Your task to perform on an android device: Open Chrome and go to settings Image 0: 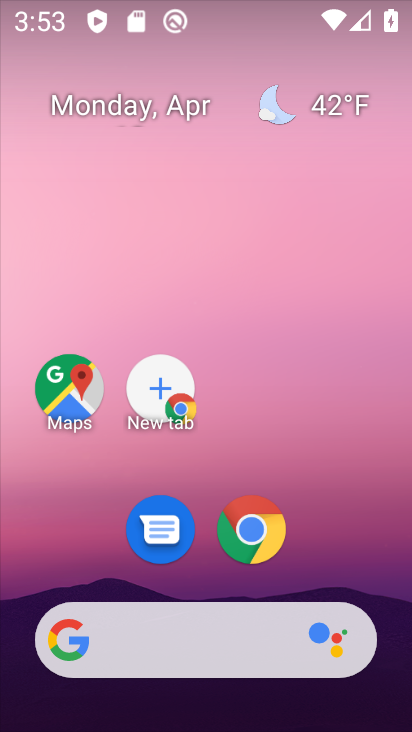
Step 0: click (233, 535)
Your task to perform on an android device: Open Chrome and go to settings Image 1: 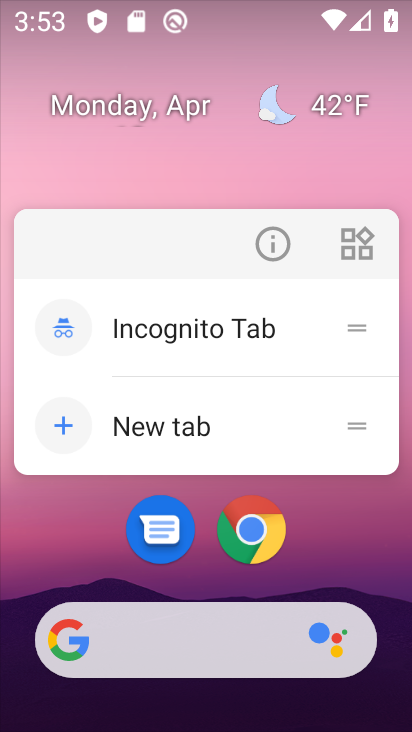
Step 1: click (268, 528)
Your task to perform on an android device: Open Chrome and go to settings Image 2: 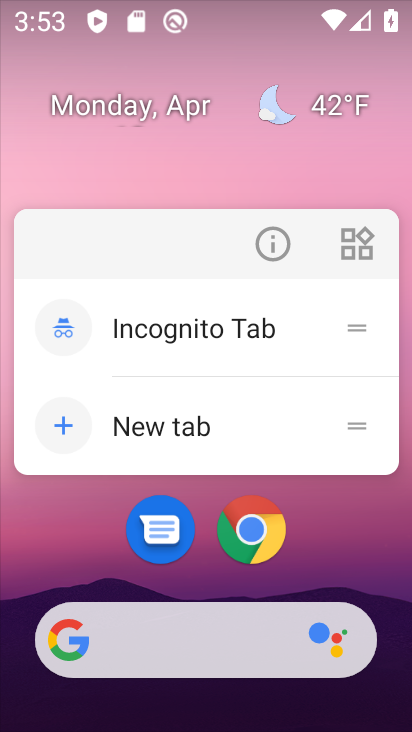
Step 2: click (259, 527)
Your task to perform on an android device: Open Chrome and go to settings Image 3: 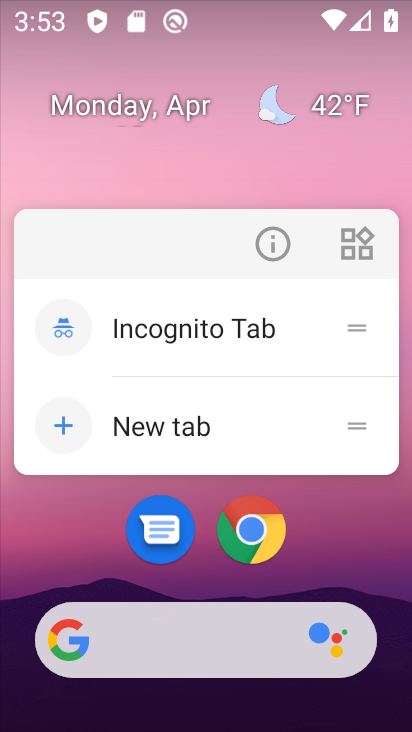
Step 3: click (258, 526)
Your task to perform on an android device: Open Chrome and go to settings Image 4: 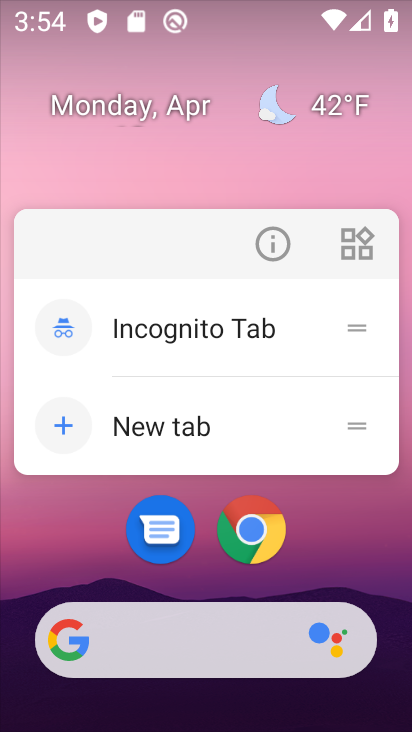
Step 4: click (255, 525)
Your task to perform on an android device: Open Chrome and go to settings Image 5: 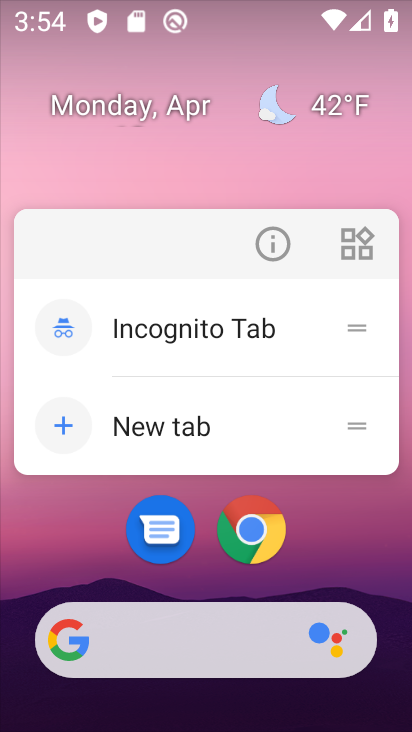
Step 5: click (255, 521)
Your task to perform on an android device: Open Chrome and go to settings Image 6: 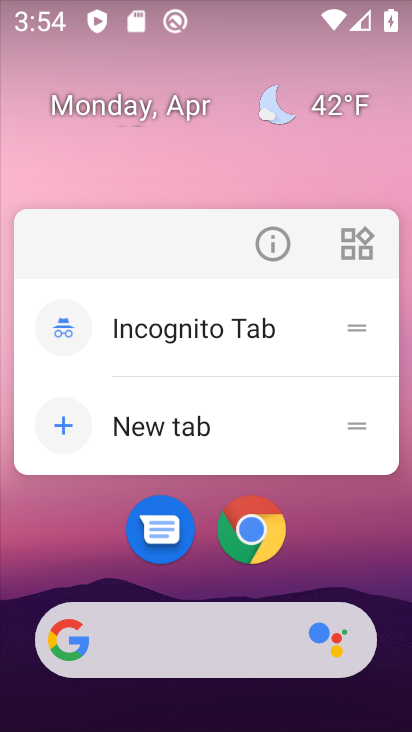
Step 6: click (252, 521)
Your task to perform on an android device: Open Chrome and go to settings Image 7: 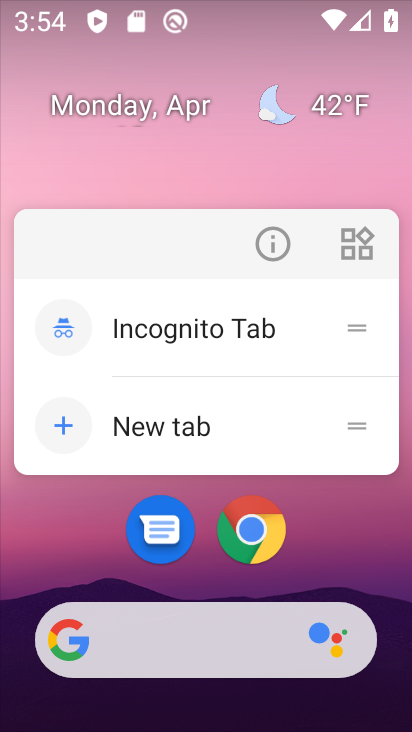
Step 7: click (260, 530)
Your task to perform on an android device: Open Chrome and go to settings Image 8: 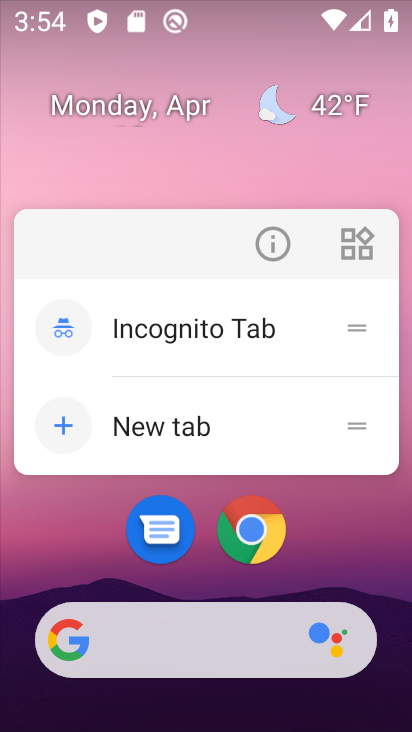
Step 8: click (247, 520)
Your task to perform on an android device: Open Chrome and go to settings Image 9: 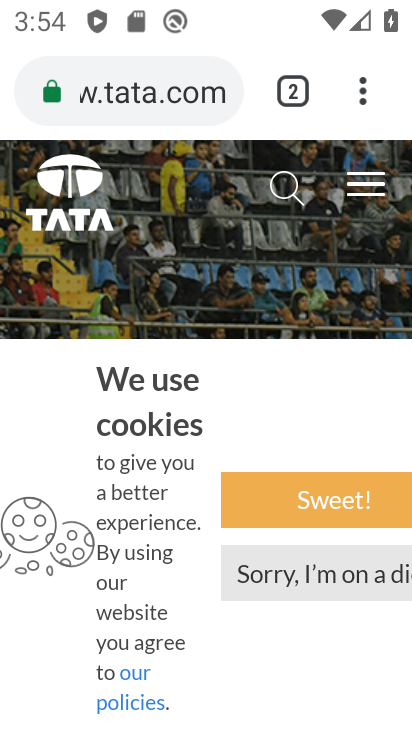
Step 9: task complete